Your task to perform on an android device: Go to CNN.com Image 0: 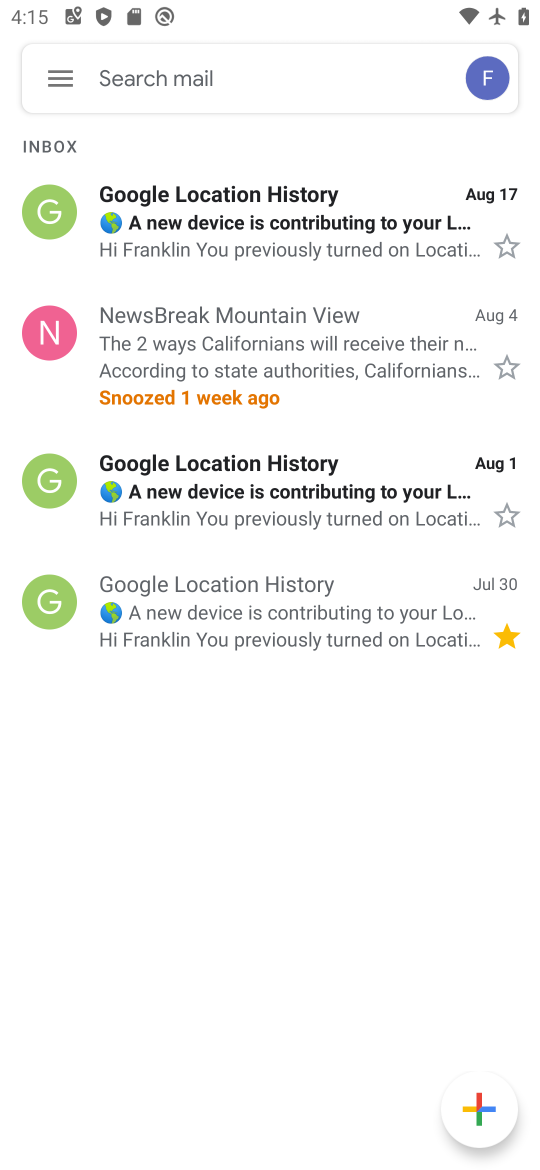
Step 0: press home button
Your task to perform on an android device: Go to CNN.com Image 1: 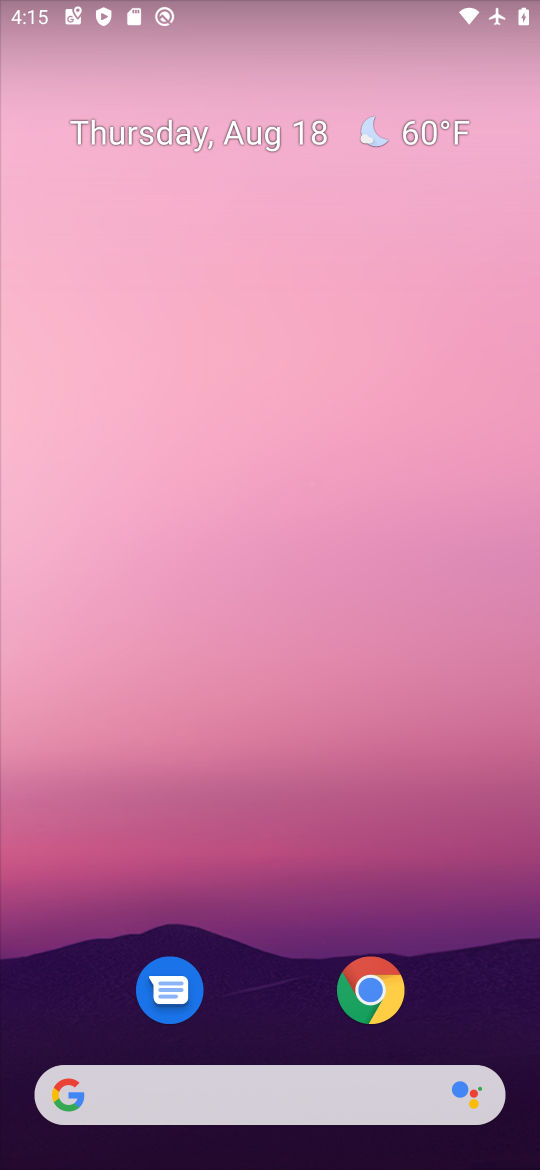
Step 1: drag from (282, 980) to (277, 0)
Your task to perform on an android device: Go to CNN.com Image 2: 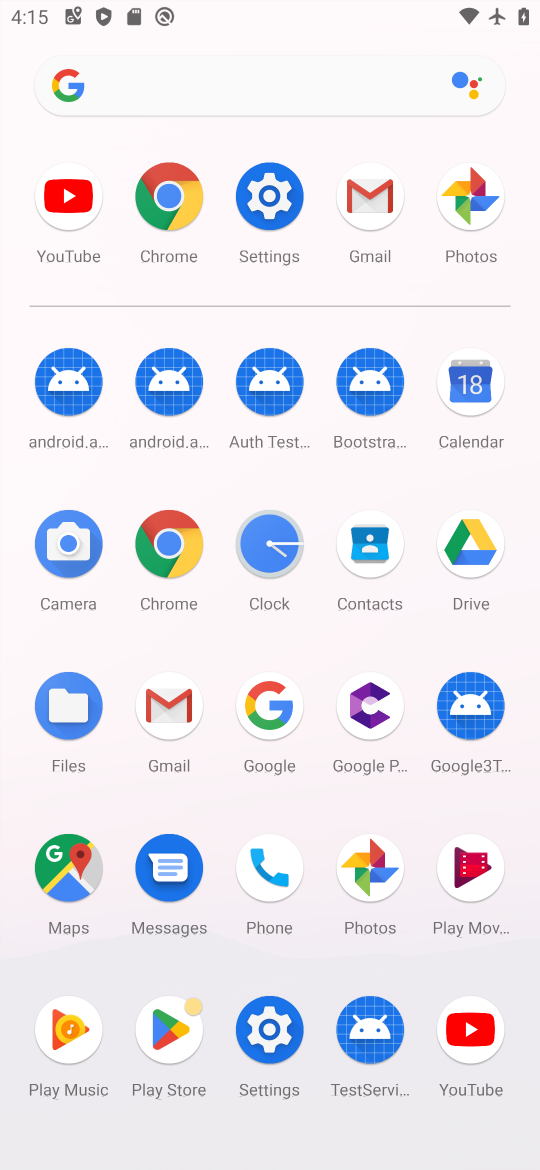
Step 2: click (161, 549)
Your task to perform on an android device: Go to CNN.com Image 3: 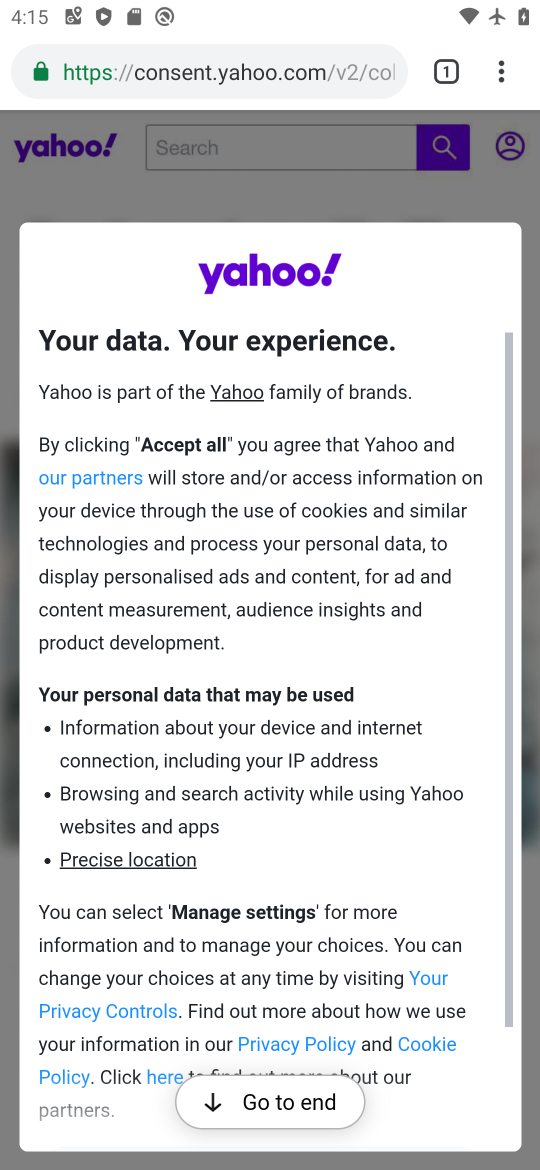
Step 3: click (237, 78)
Your task to perform on an android device: Go to CNN.com Image 4: 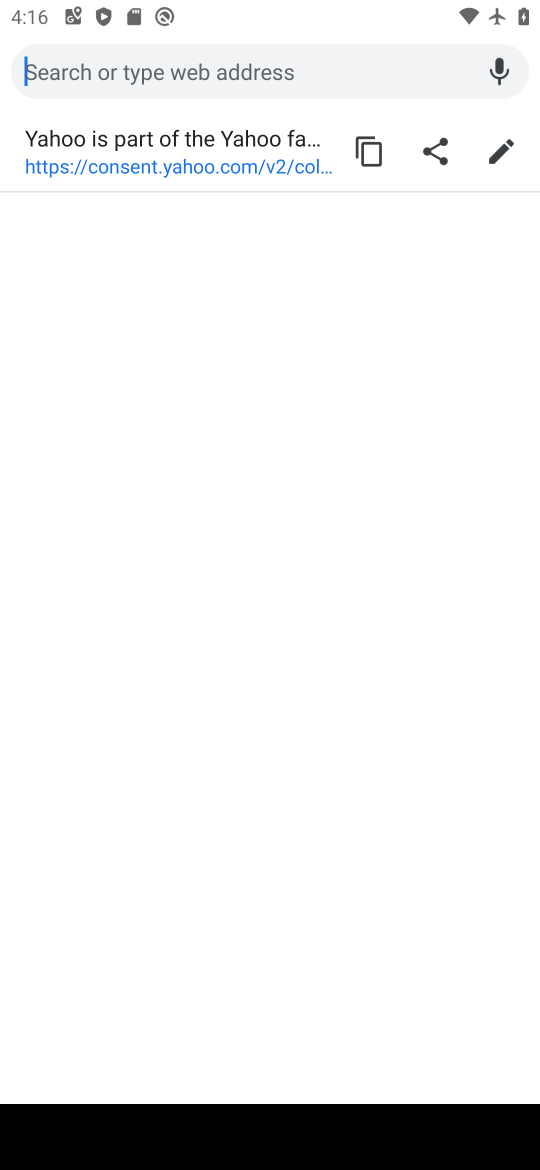
Step 4: type "cnn.com"
Your task to perform on an android device: Go to CNN.com Image 5: 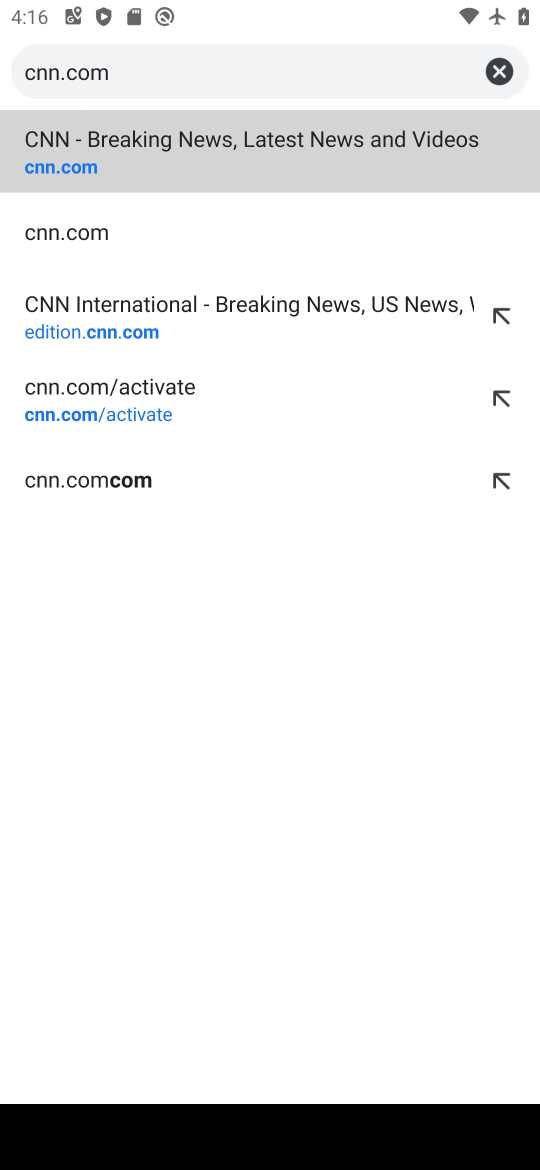
Step 5: click (85, 173)
Your task to perform on an android device: Go to CNN.com Image 6: 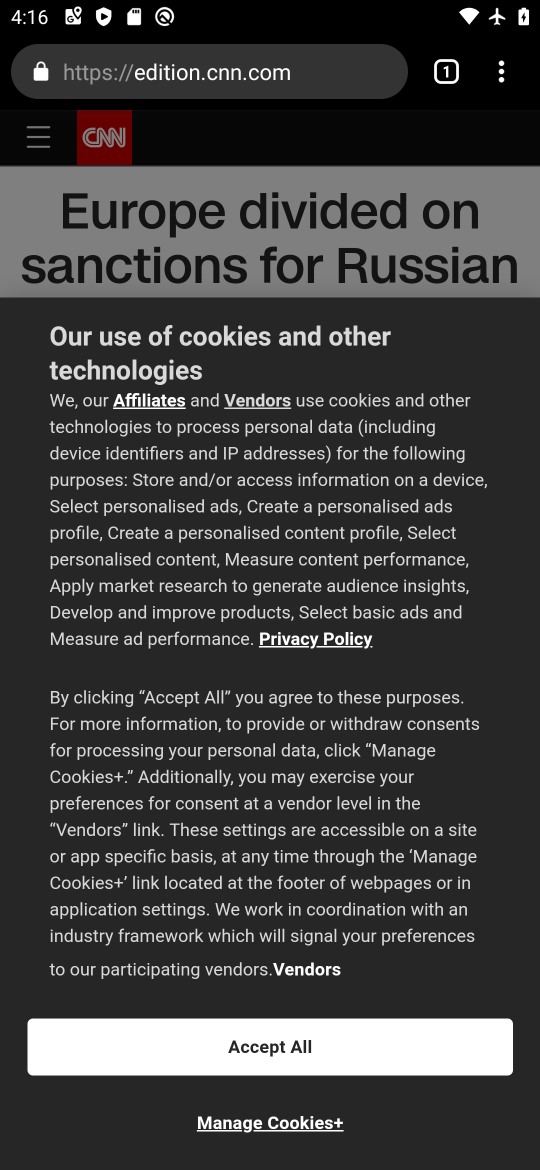
Step 6: task complete